Your task to perform on an android device: turn off smart reply in the gmail app Image 0: 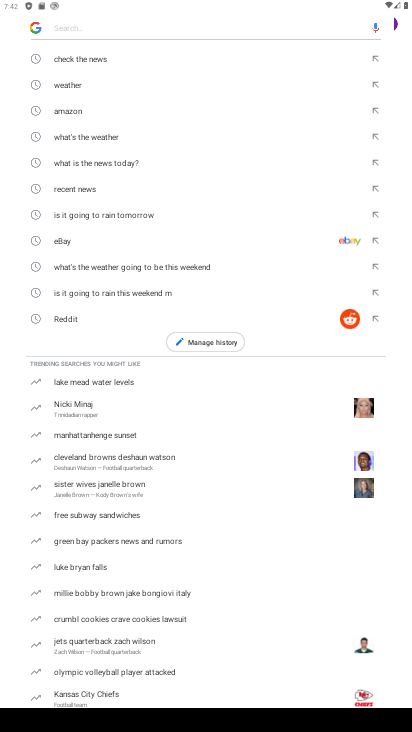
Step 0: press home button
Your task to perform on an android device: turn off smart reply in the gmail app Image 1: 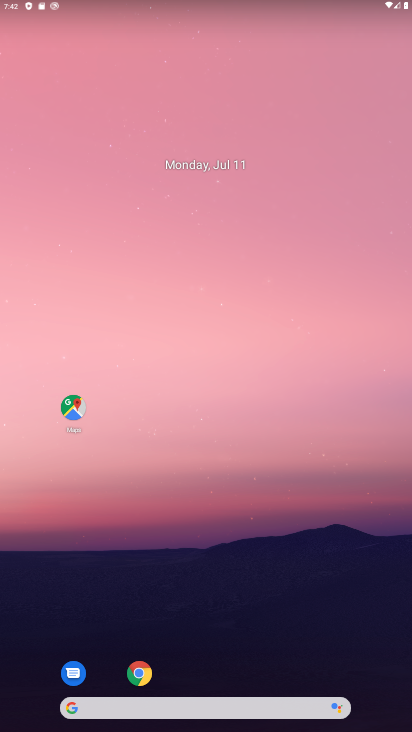
Step 1: drag from (289, 639) to (283, 158)
Your task to perform on an android device: turn off smart reply in the gmail app Image 2: 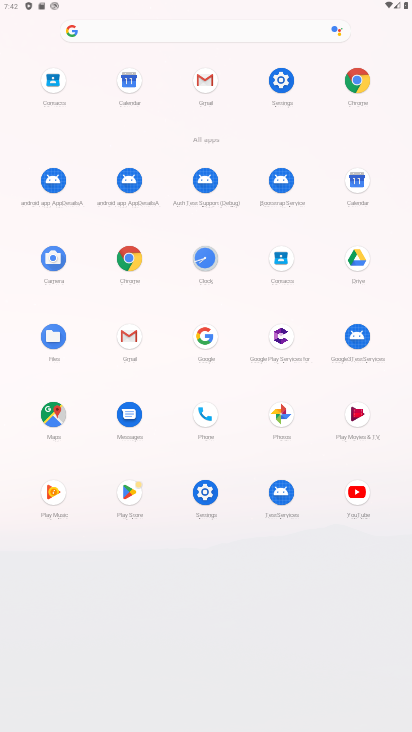
Step 2: click (193, 79)
Your task to perform on an android device: turn off smart reply in the gmail app Image 3: 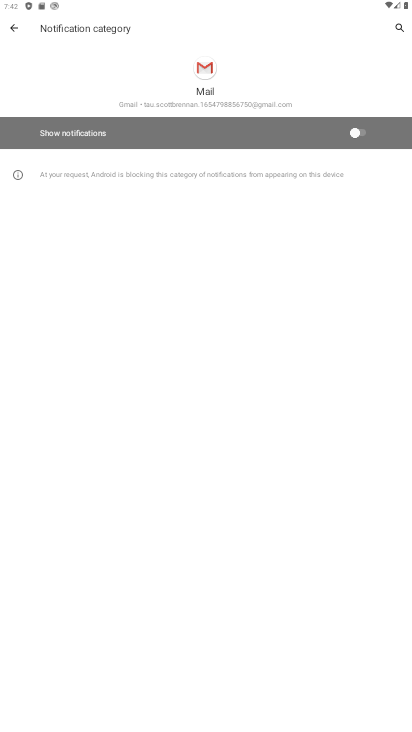
Step 3: click (16, 36)
Your task to perform on an android device: turn off smart reply in the gmail app Image 4: 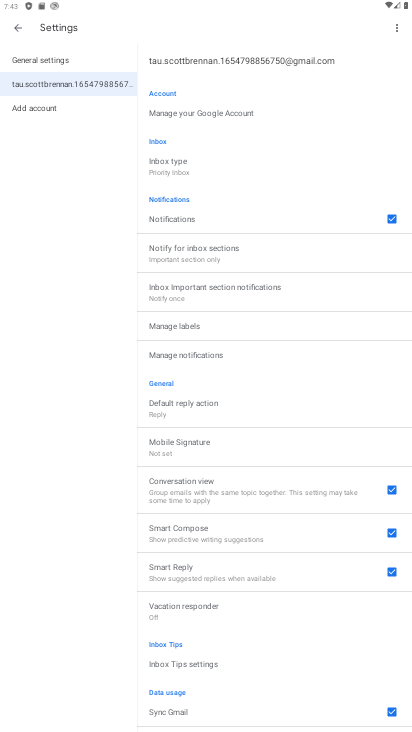
Step 4: click (391, 573)
Your task to perform on an android device: turn off smart reply in the gmail app Image 5: 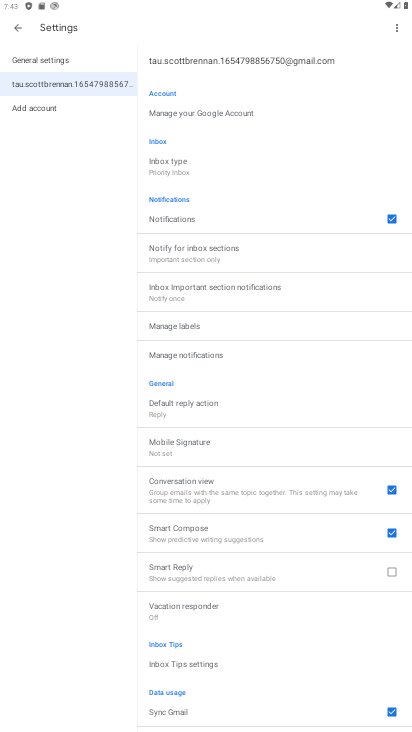
Step 5: task complete